Your task to perform on an android device: open app "Microsoft Outlook" (install if not already installed) and go to login screen Image 0: 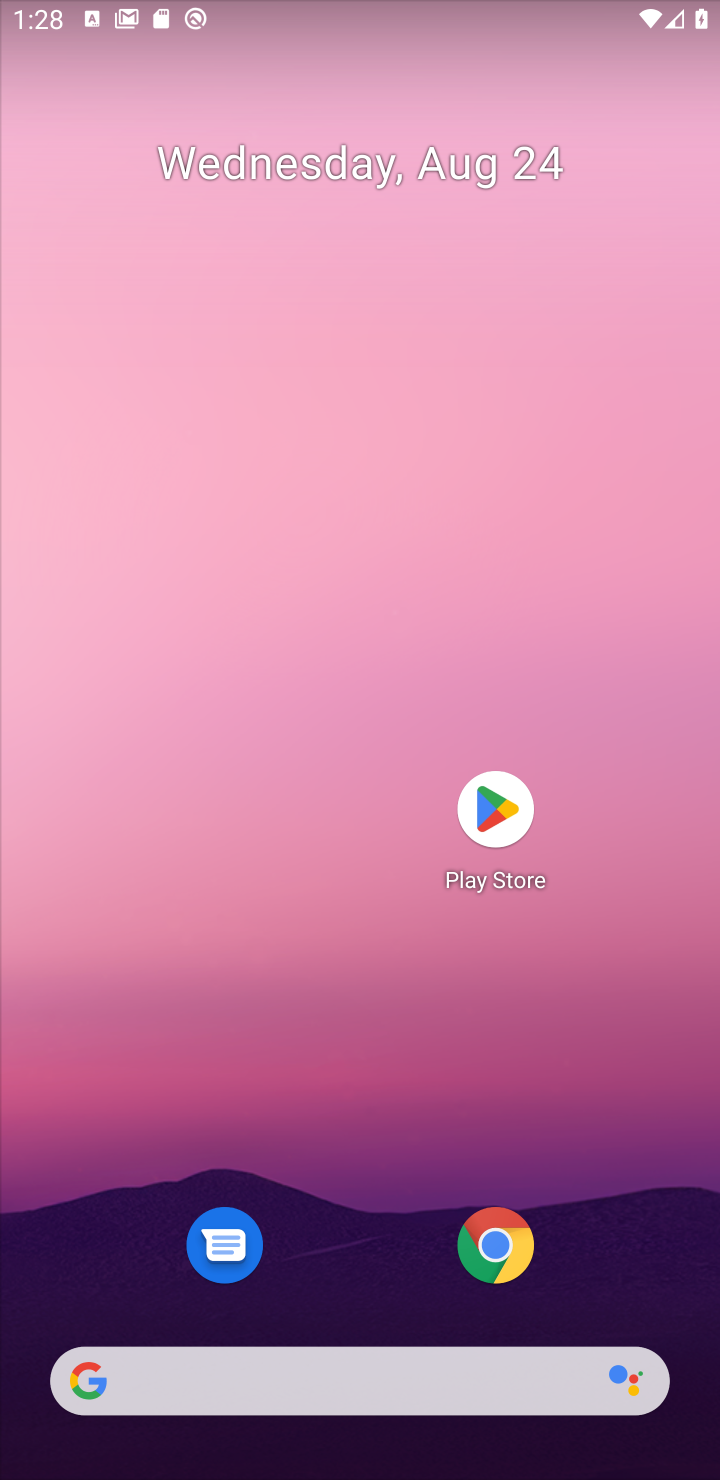
Step 0: click (486, 826)
Your task to perform on an android device: open app "Microsoft Outlook" (install if not already installed) and go to login screen Image 1: 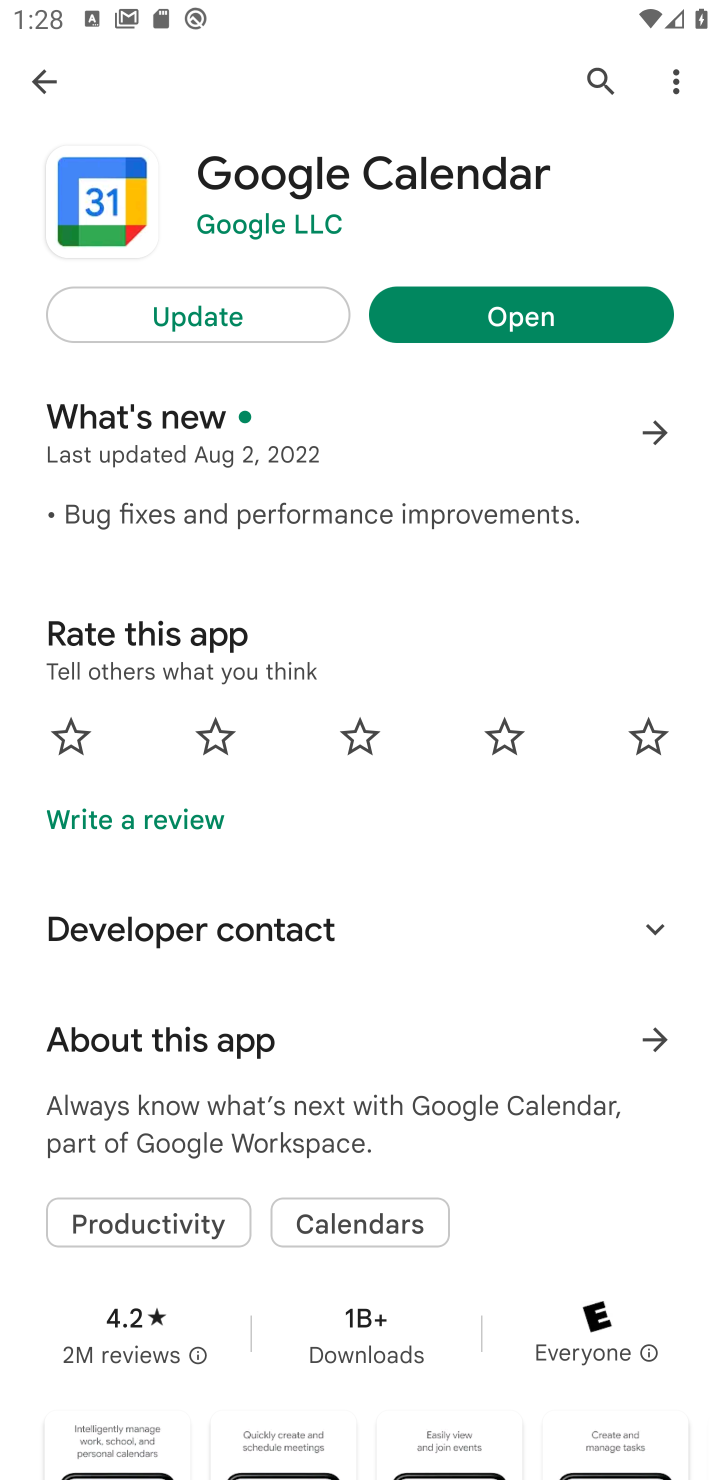
Step 1: click (588, 77)
Your task to perform on an android device: open app "Microsoft Outlook" (install if not already installed) and go to login screen Image 2: 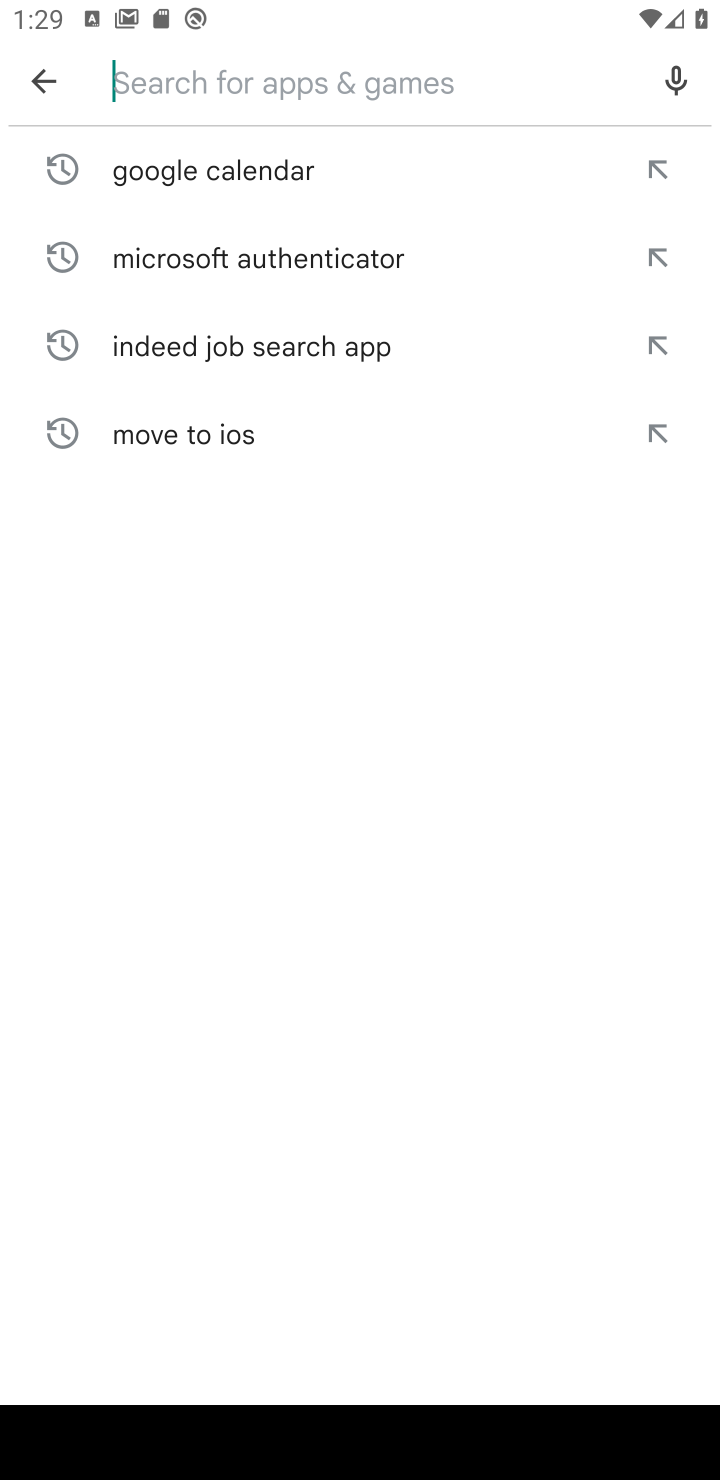
Step 2: type "Microsoft Outlook"
Your task to perform on an android device: open app "Microsoft Outlook" (install if not already installed) and go to login screen Image 3: 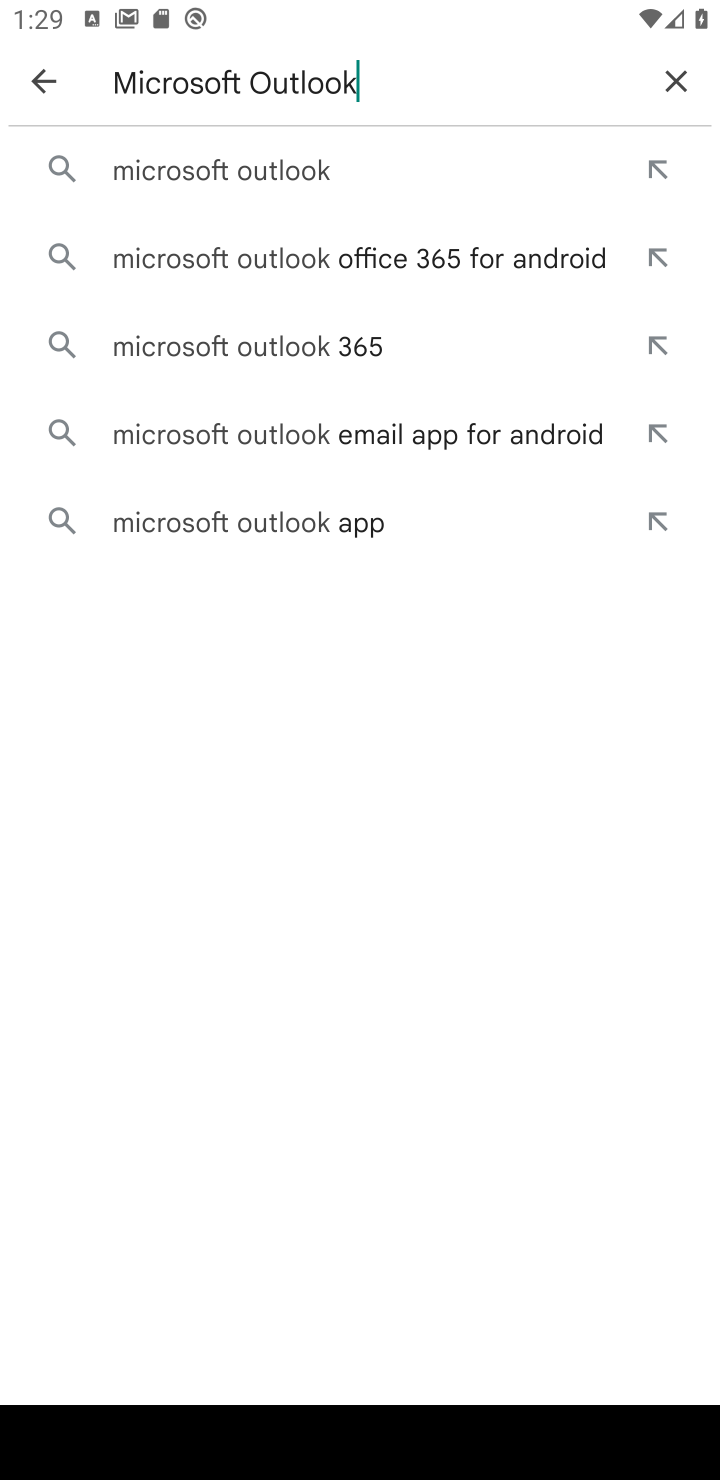
Step 3: click (294, 176)
Your task to perform on an android device: open app "Microsoft Outlook" (install if not already installed) and go to login screen Image 4: 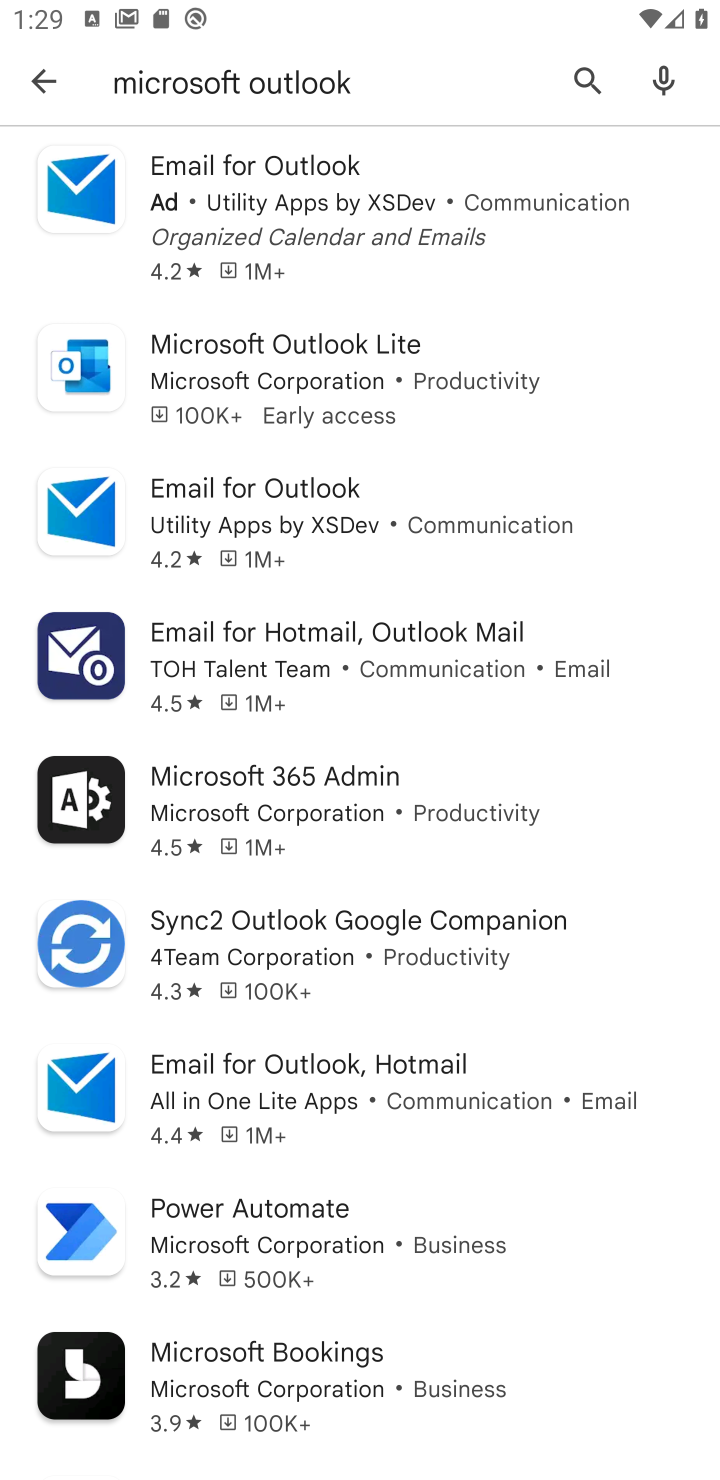
Step 4: task complete